Your task to perform on an android device: Open network settings Image 0: 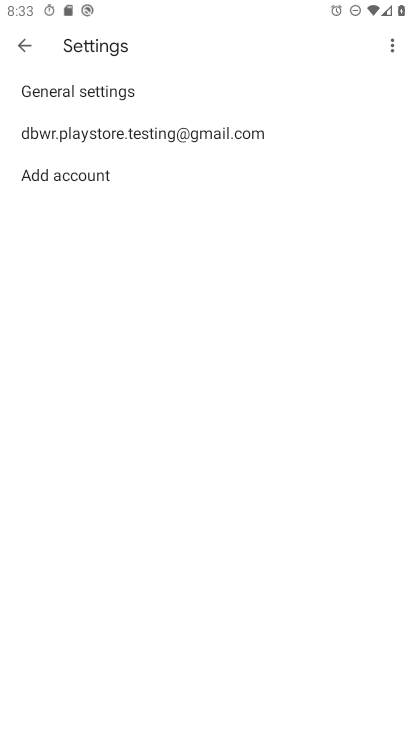
Step 0: press home button
Your task to perform on an android device: Open network settings Image 1: 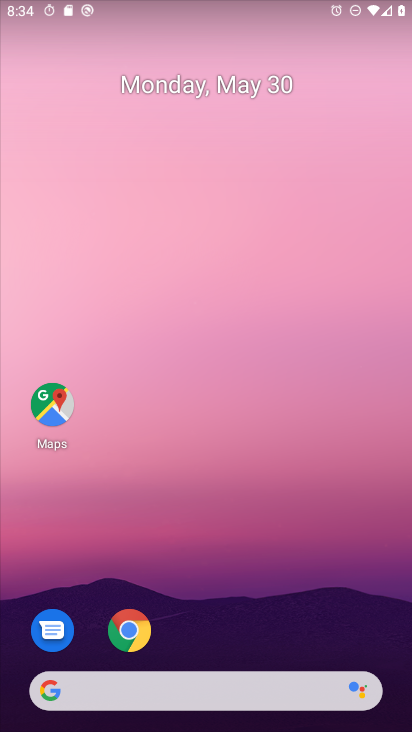
Step 1: drag from (326, 639) to (317, 240)
Your task to perform on an android device: Open network settings Image 2: 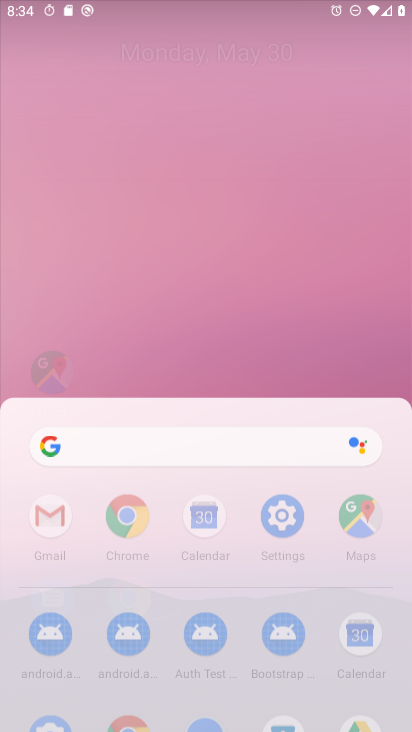
Step 2: click (296, 40)
Your task to perform on an android device: Open network settings Image 3: 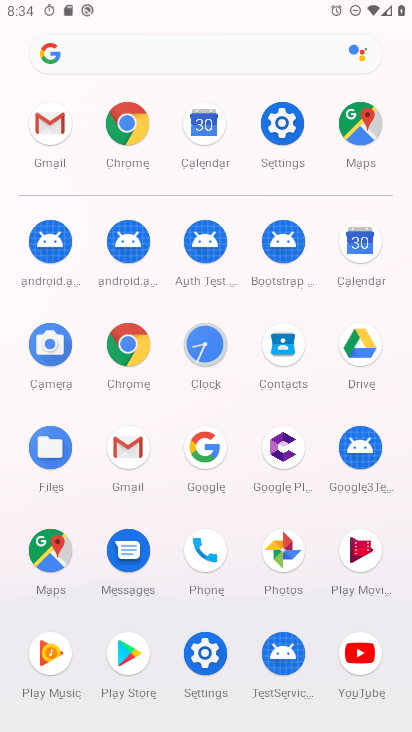
Step 3: click (292, 143)
Your task to perform on an android device: Open network settings Image 4: 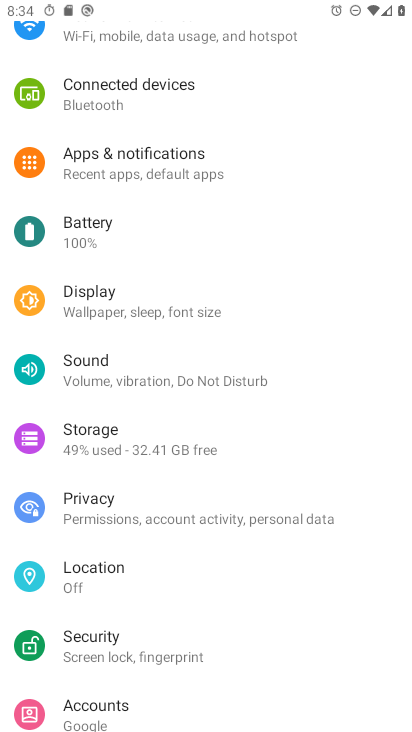
Step 4: drag from (243, 132) to (270, 624)
Your task to perform on an android device: Open network settings Image 5: 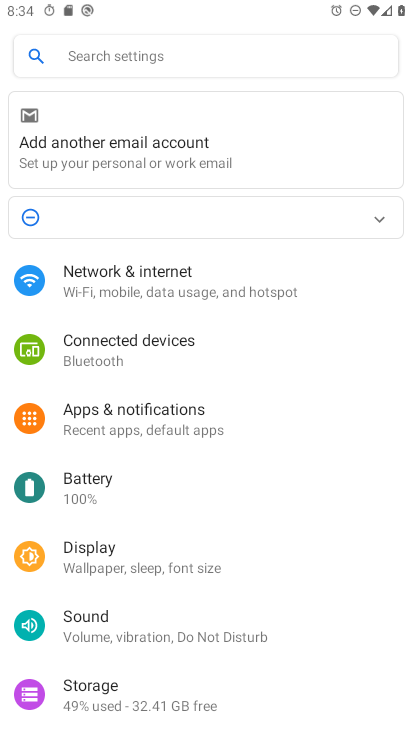
Step 5: click (188, 292)
Your task to perform on an android device: Open network settings Image 6: 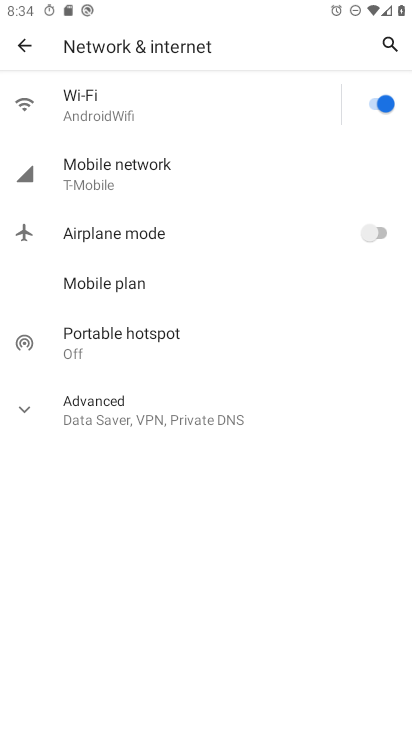
Step 6: task complete